Your task to perform on an android device: Go to Amazon Image 0: 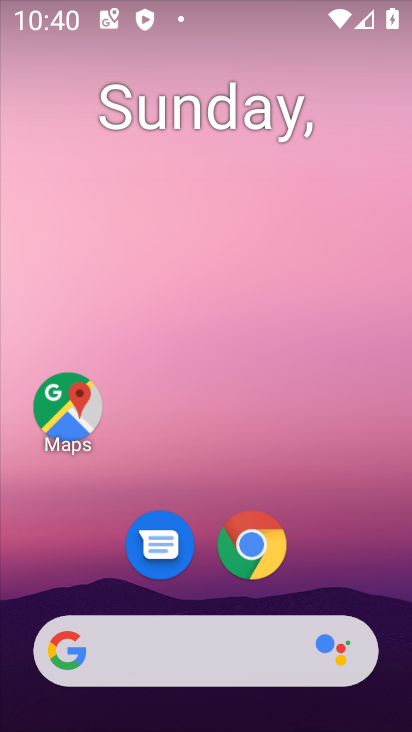
Step 0: click (264, 564)
Your task to perform on an android device: Go to Amazon Image 1: 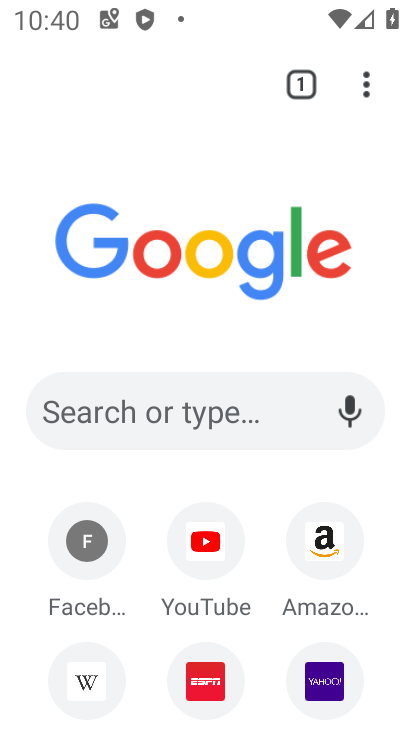
Step 1: click (327, 542)
Your task to perform on an android device: Go to Amazon Image 2: 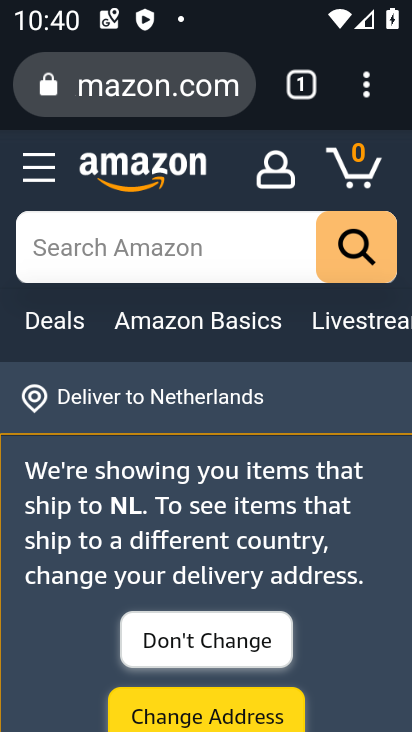
Step 2: task complete